Your task to perform on an android device: turn vacation reply on in the gmail app Image 0: 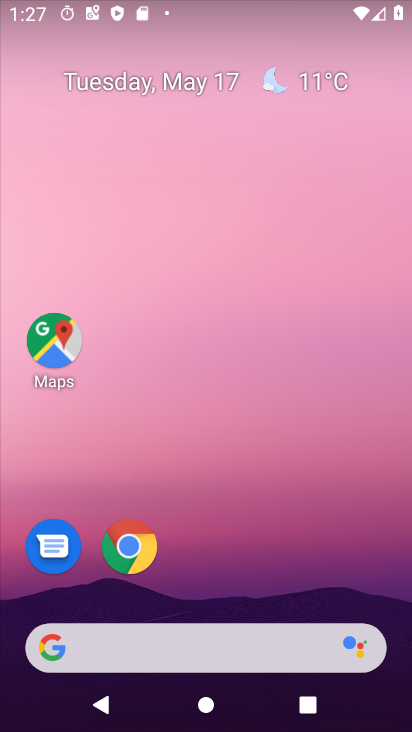
Step 0: drag from (198, 653) to (287, 235)
Your task to perform on an android device: turn vacation reply on in the gmail app Image 1: 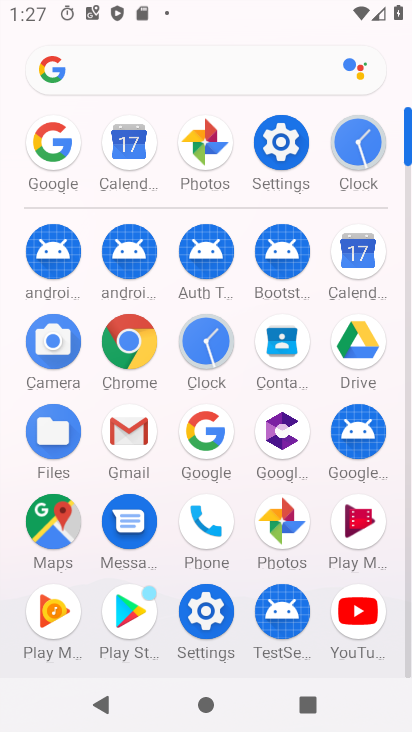
Step 1: click (129, 440)
Your task to perform on an android device: turn vacation reply on in the gmail app Image 2: 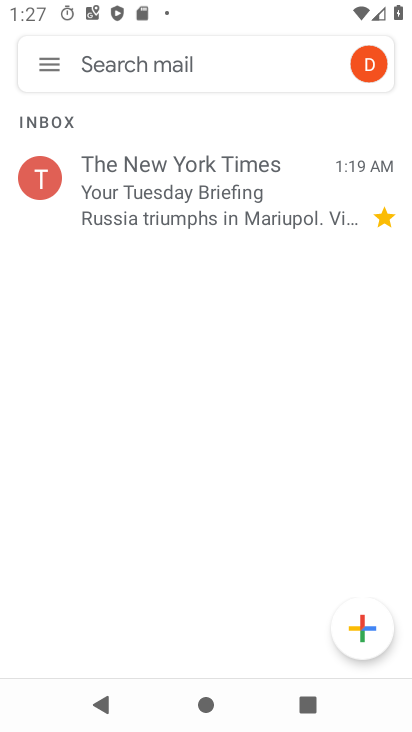
Step 2: click (45, 64)
Your task to perform on an android device: turn vacation reply on in the gmail app Image 3: 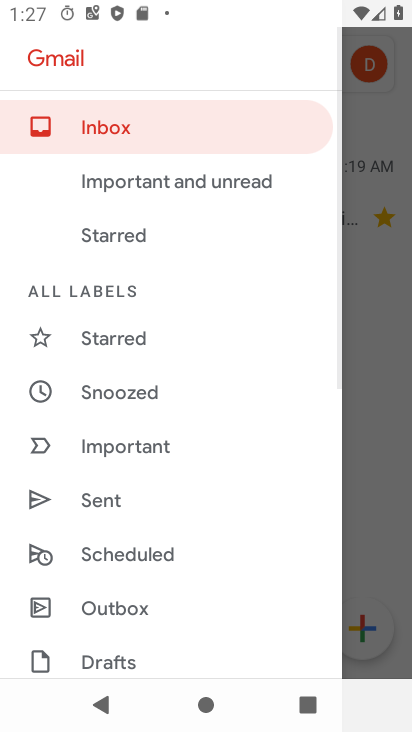
Step 3: drag from (202, 628) to (323, 104)
Your task to perform on an android device: turn vacation reply on in the gmail app Image 4: 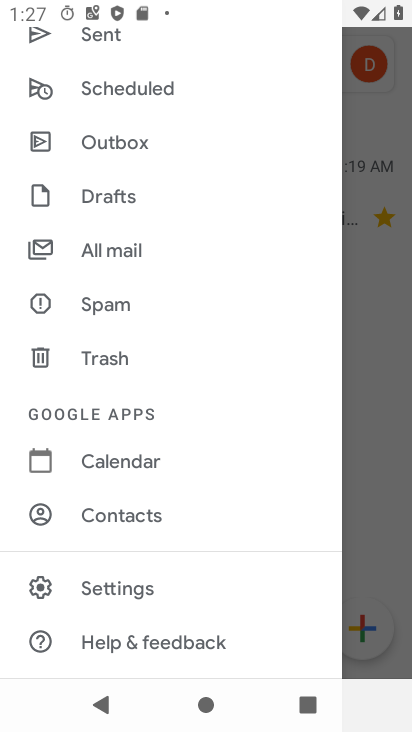
Step 4: click (130, 588)
Your task to perform on an android device: turn vacation reply on in the gmail app Image 5: 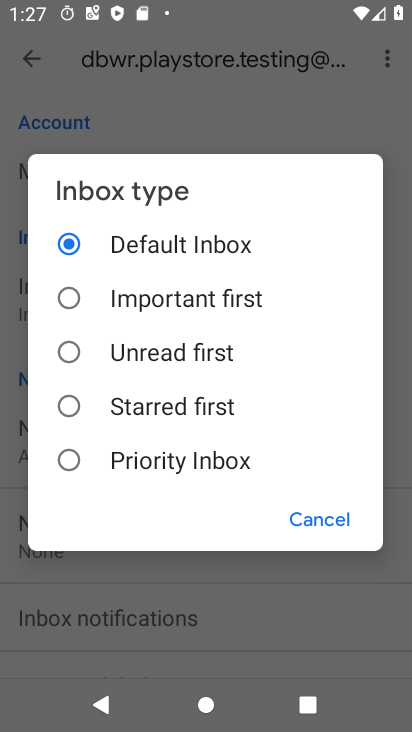
Step 5: click (330, 518)
Your task to perform on an android device: turn vacation reply on in the gmail app Image 6: 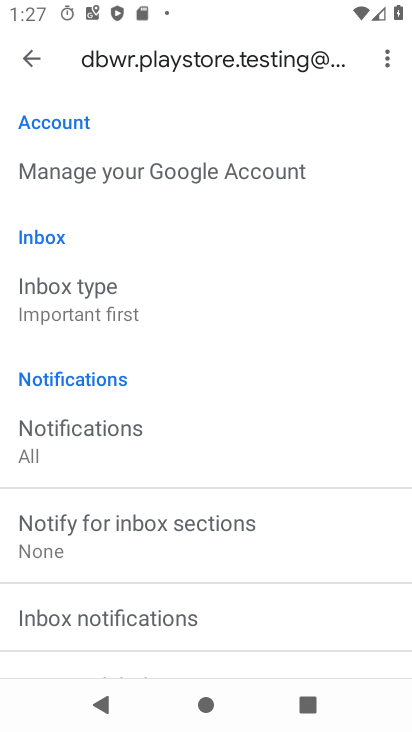
Step 6: drag from (205, 612) to (323, 39)
Your task to perform on an android device: turn vacation reply on in the gmail app Image 7: 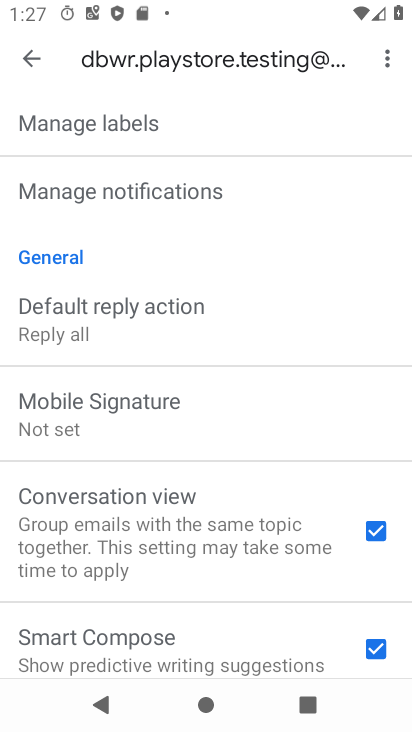
Step 7: drag from (172, 634) to (269, 180)
Your task to perform on an android device: turn vacation reply on in the gmail app Image 8: 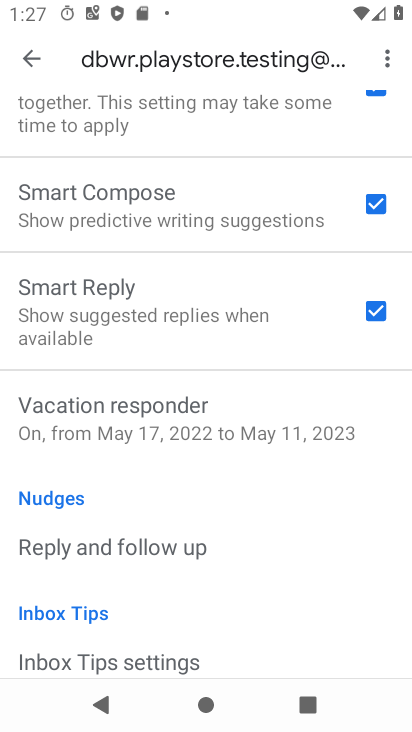
Step 8: click (170, 403)
Your task to perform on an android device: turn vacation reply on in the gmail app Image 9: 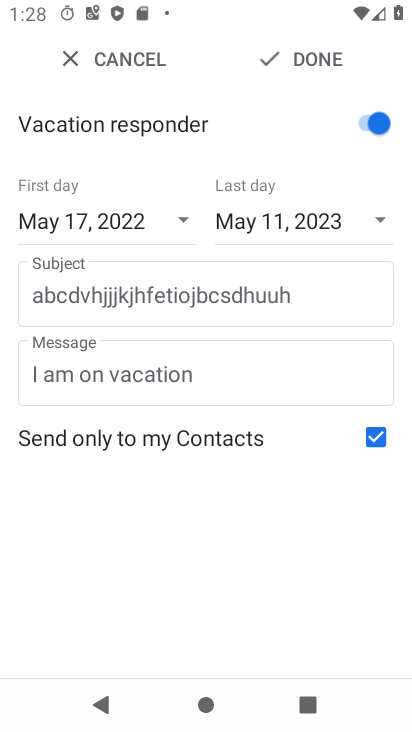
Step 9: task complete